Your task to perform on an android device: show emergency info Image 0: 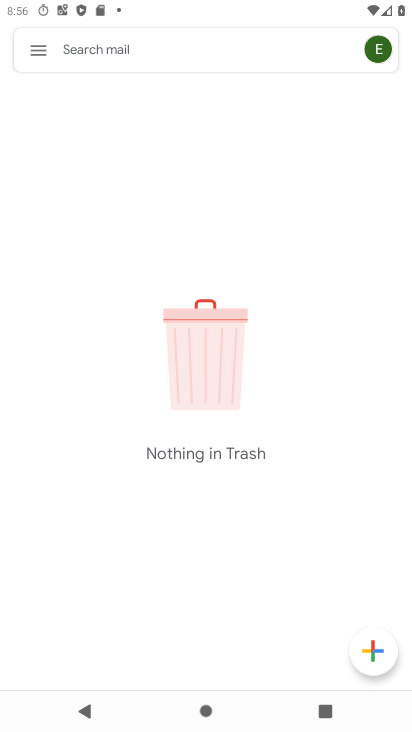
Step 0: press home button
Your task to perform on an android device: show emergency info Image 1: 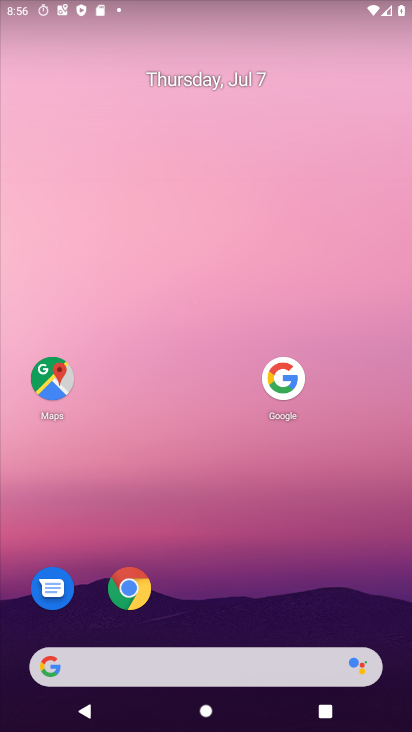
Step 1: drag from (174, 666) to (296, 24)
Your task to perform on an android device: show emergency info Image 2: 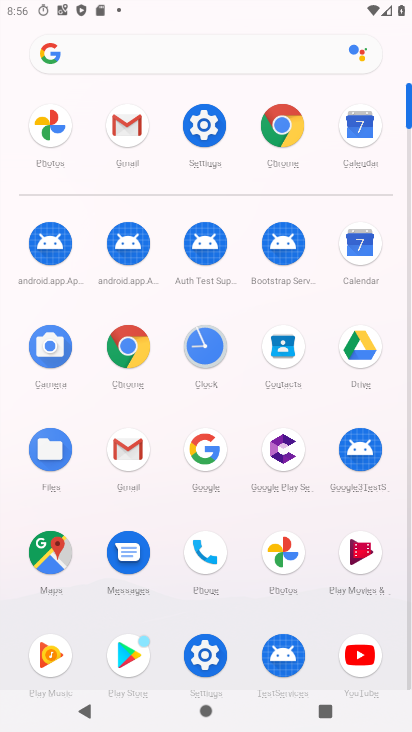
Step 2: click (198, 119)
Your task to perform on an android device: show emergency info Image 3: 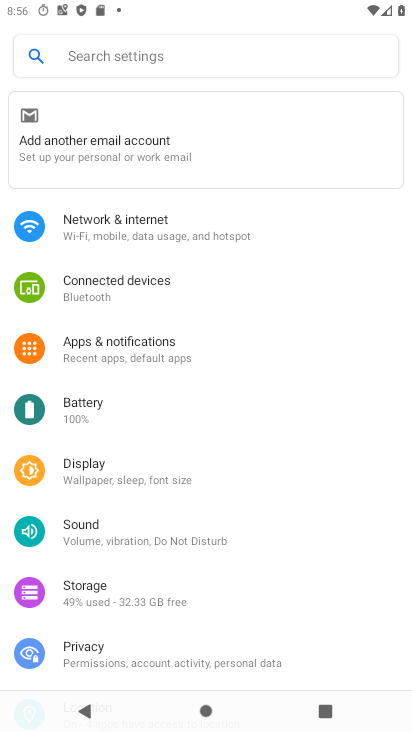
Step 3: drag from (204, 634) to (274, 106)
Your task to perform on an android device: show emergency info Image 4: 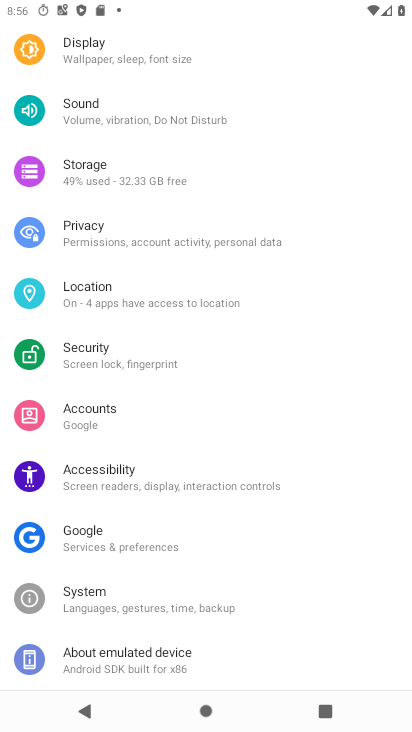
Step 4: click (153, 660)
Your task to perform on an android device: show emergency info Image 5: 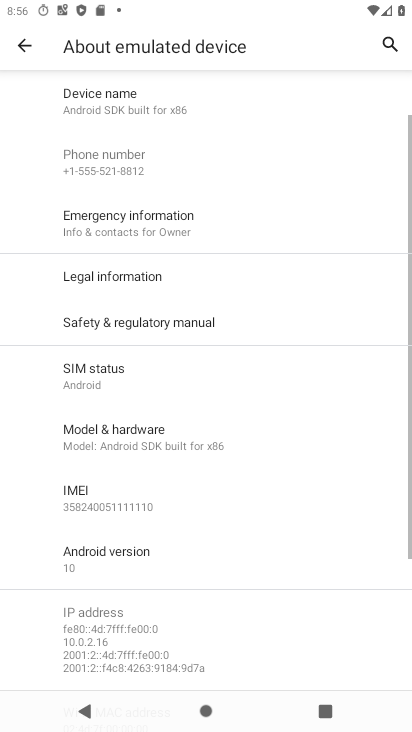
Step 5: click (162, 224)
Your task to perform on an android device: show emergency info Image 6: 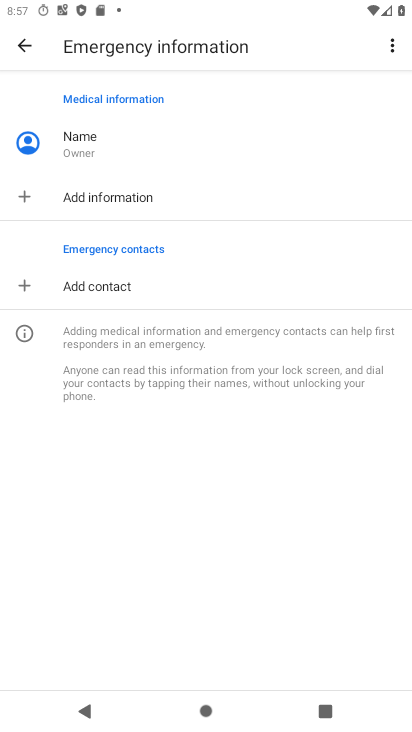
Step 6: task complete